Your task to perform on an android device: choose inbox layout in the gmail app Image 0: 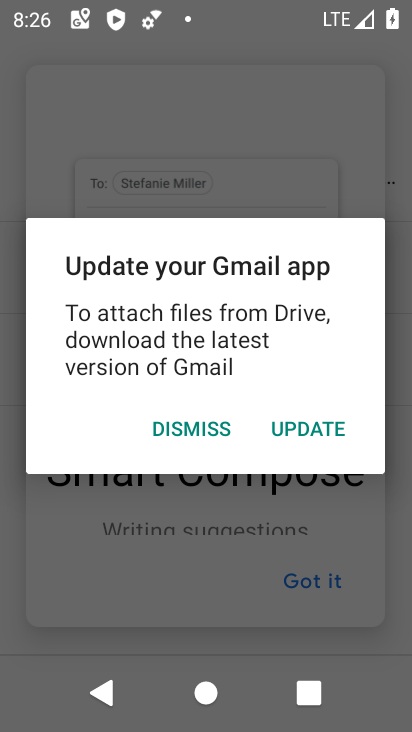
Step 0: press home button
Your task to perform on an android device: choose inbox layout in the gmail app Image 1: 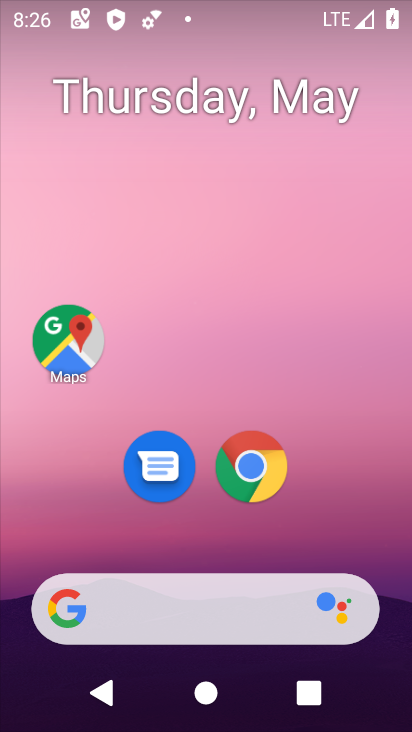
Step 1: drag from (362, 576) to (388, 9)
Your task to perform on an android device: choose inbox layout in the gmail app Image 2: 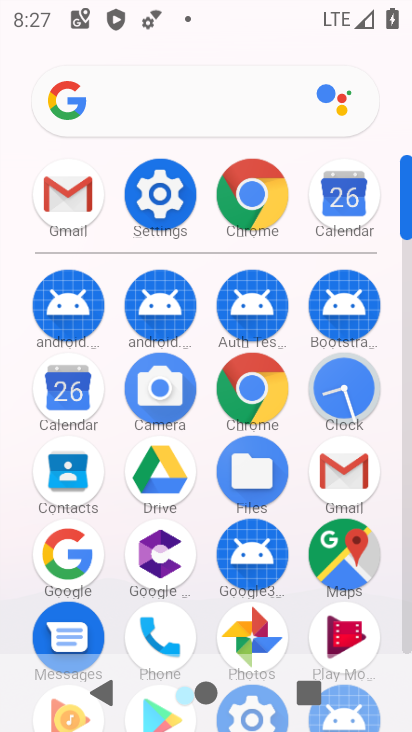
Step 2: click (66, 185)
Your task to perform on an android device: choose inbox layout in the gmail app Image 3: 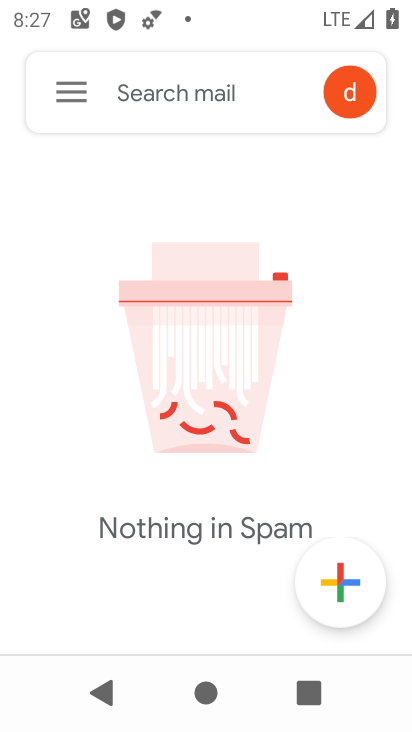
Step 3: click (61, 95)
Your task to perform on an android device: choose inbox layout in the gmail app Image 4: 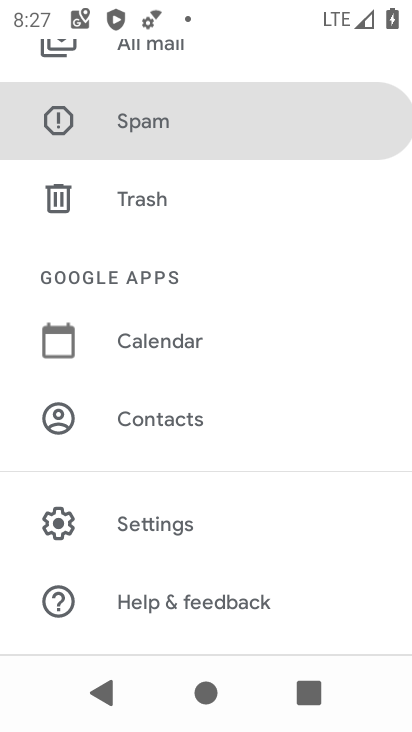
Step 4: click (88, 523)
Your task to perform on an android device: choose inbox layout in the gmail app Image 5: 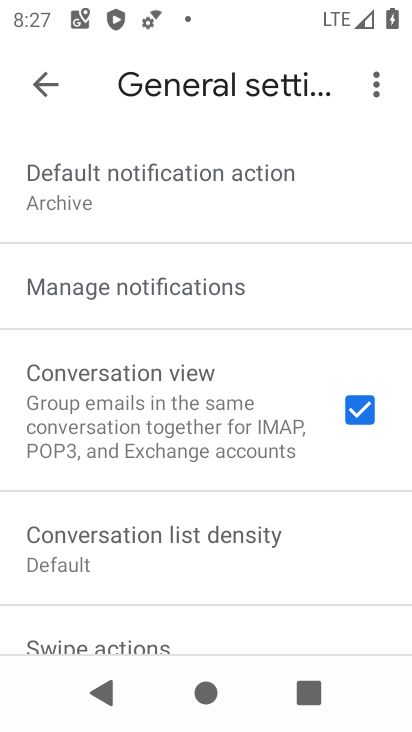
Step 5: click (55, 96)
Your task to perform on an android device: choose inbox layout in the gmail app Image 6: 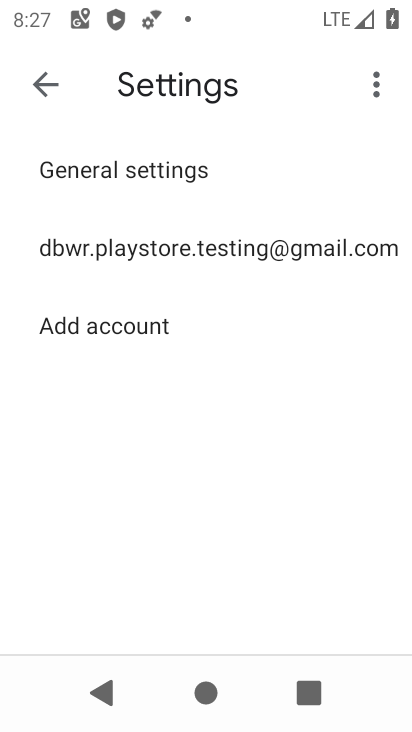
Step 6: click (130, 253)
Your task to perform on an android device: choose inbox layout in the gmail app Image 7: 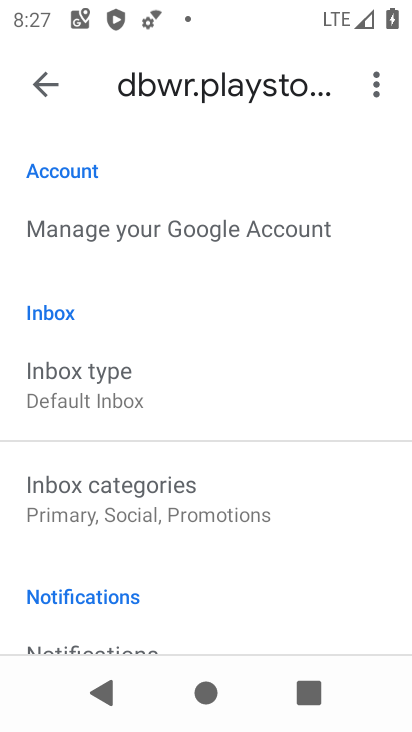
Step 7: click (96, 388)
Your task to perform on an android device: choose inbox layout in the gmail app Image 8: 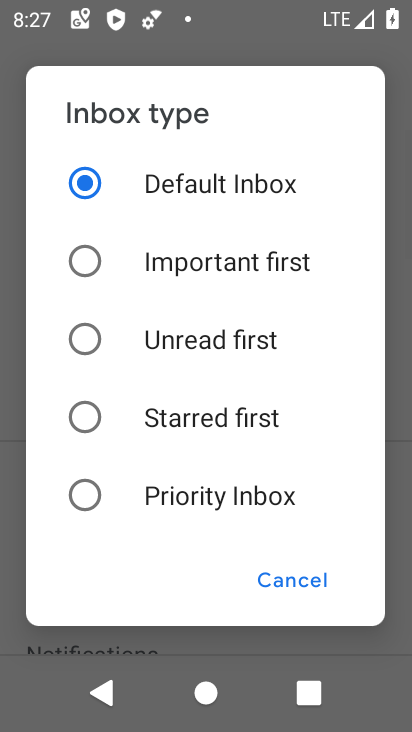
Step 8: click (83, 339)
Your task to perform on an android device: choose inbox layout in the gmail app Image 9: 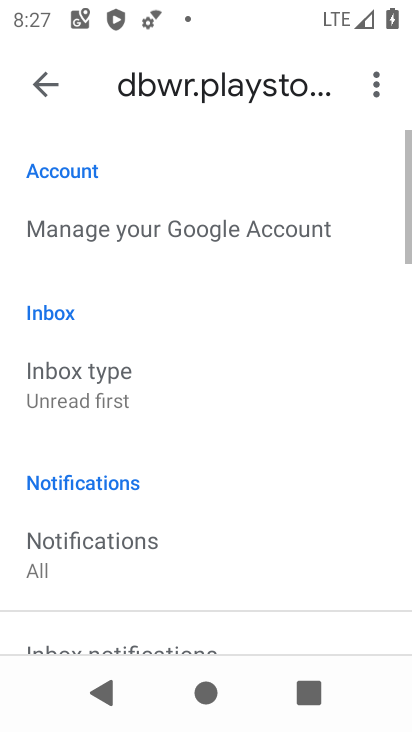
Step 9: task complete